Your task to perform on an android device: change keyboard looks Image 0: 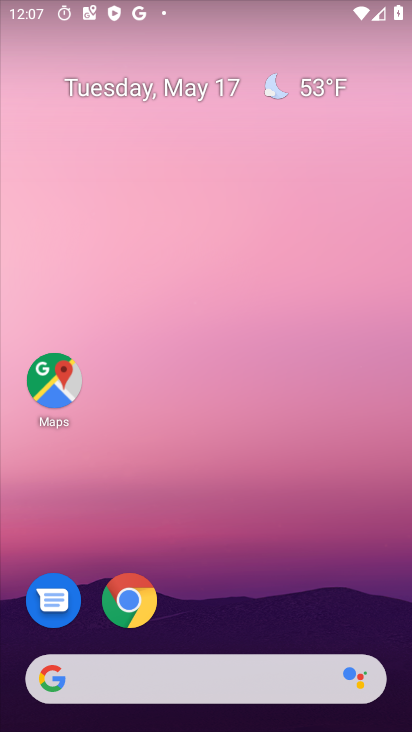
Step 0: drag from (227, 636) to (254, 4)
Your task to perform on an android device: change keyboard looks Image 1: 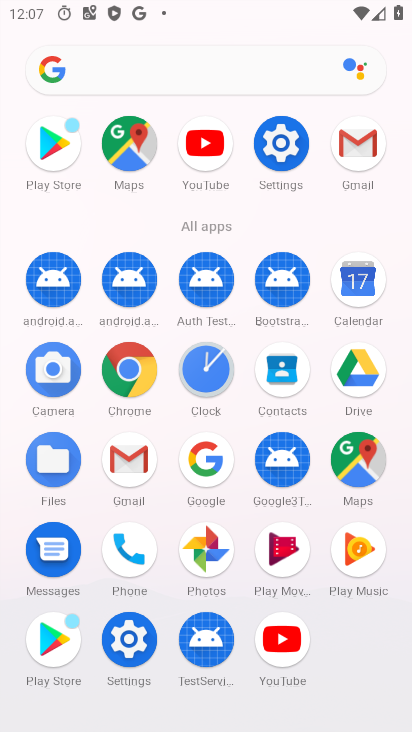
Step 1: click (135, 639)
Your task to perform on an android device: change keyboard looks Image 2: 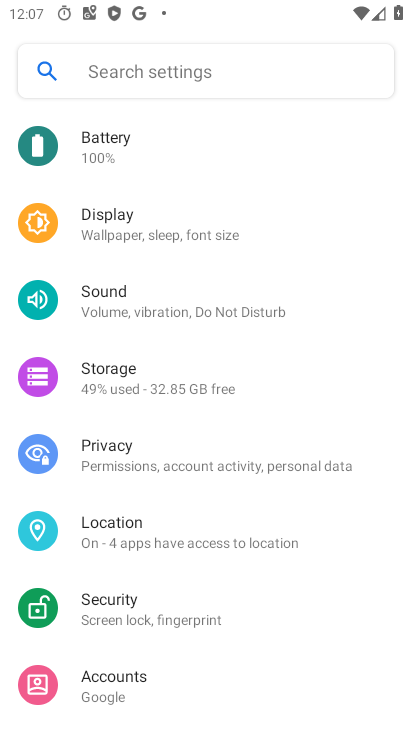
Step 2: drag from (192, 655) to (176, 356)
Your task to perform on an android device: change keyboard looks Image 3: 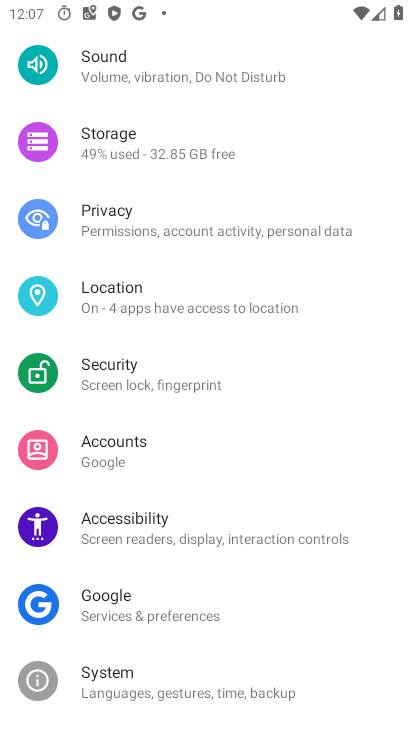
Step 3: drag from (224, 519) to (194, 234)
Your task to perform on an android device: change keyboard looks Image 4: 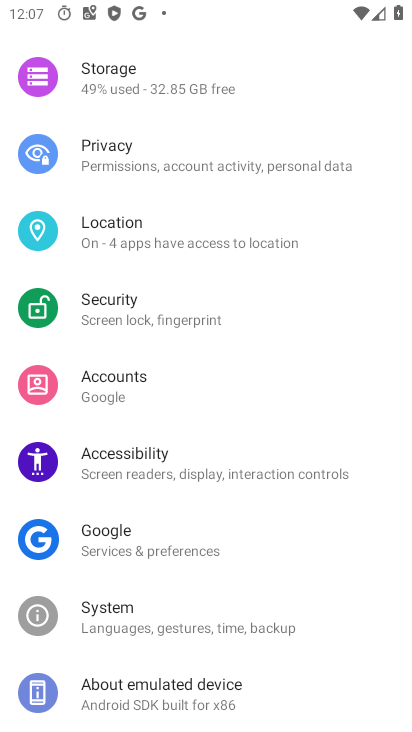
Step 4: click (205, 622)
Your task to perform on an android device: change keyboard looks Image 5: 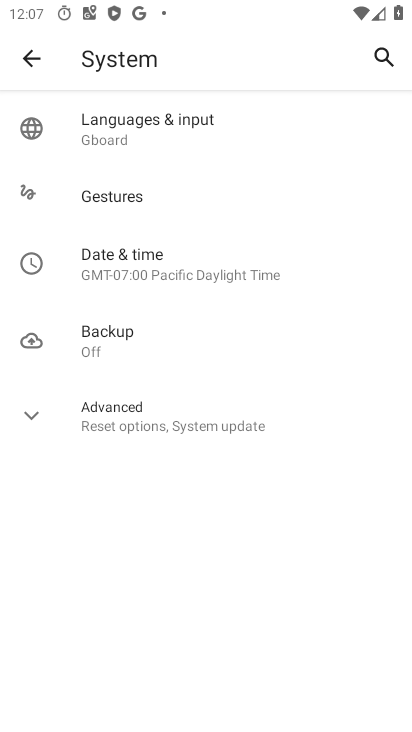
Step 5: click (104, 119)
Your task to perform on an android device: change keyboard looks Image 6: 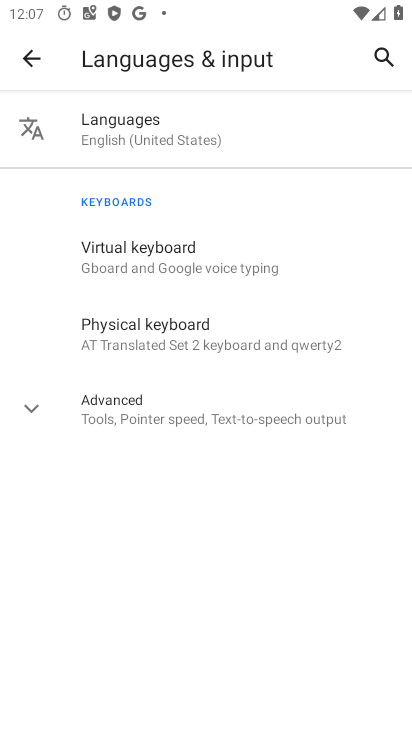
Step 6: click (161, 253)
Your task to perform on an android device: change keyboard looks Image 7: 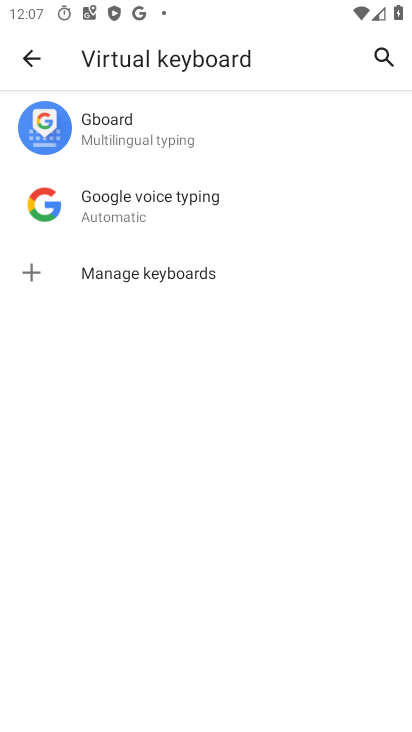
Step 7: click (101, 130)
Your task to perform on an android device: change keyboard looks Image 8: 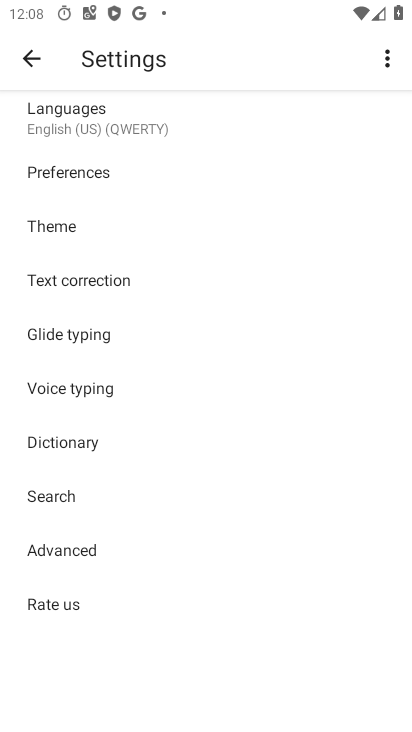
Step 8: click (76, 223)
Your task to perform on an android device: change keyboard looks Image 9: 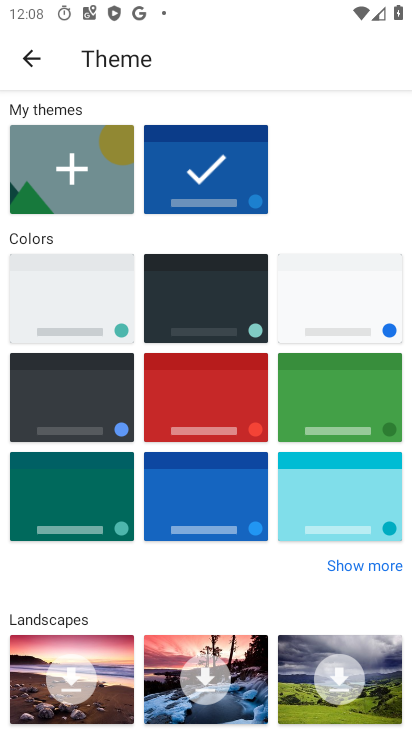
Step 9: click (304, 503)
Your task to perform on an android device: change keyboard looks Image 10: 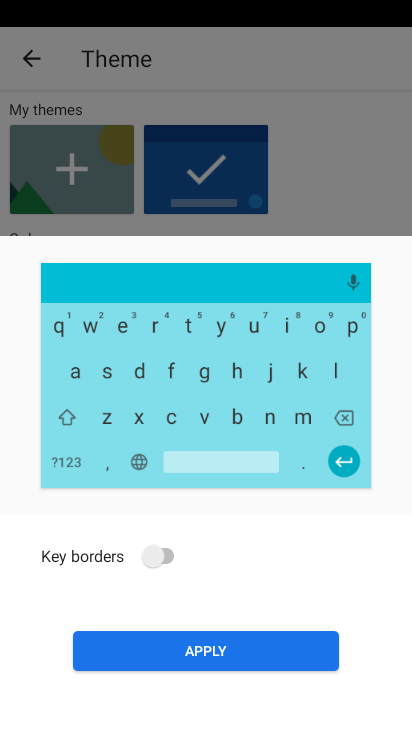
Step 10: click (193, 651)
Your task to perform on an android device: change keyboard looks Image 11: 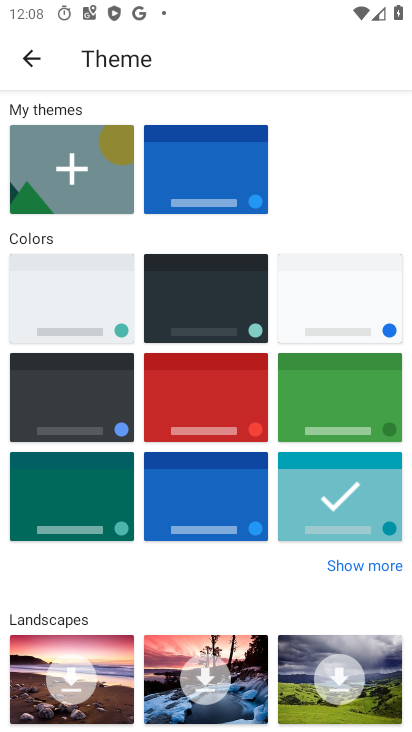
Step 11: task complete